Your task to perform on an android device: Find coffee shops on Maps Image 0: 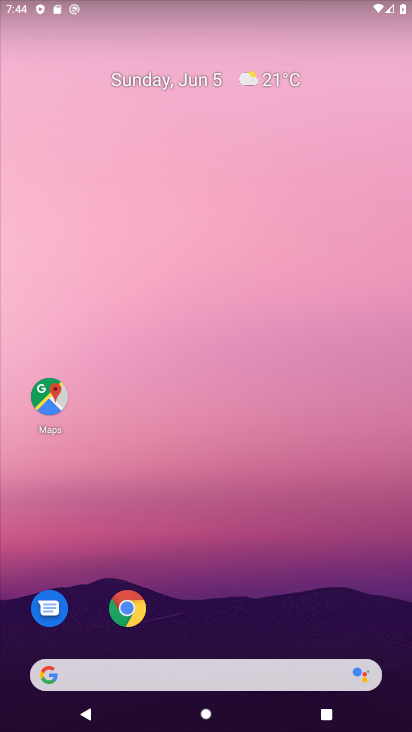
Step 0: drag from (188, 604) to (189, 229)
Your task to perform on an android device: Find coffee shops on Maps Image 1: 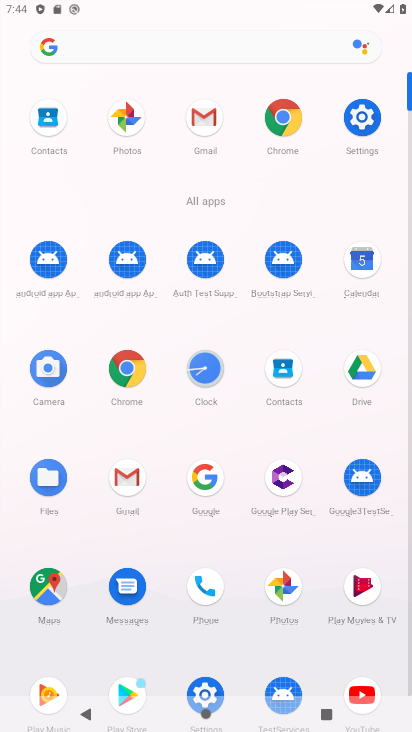
Step 1: click (46, 582)
Your task to perform on an android device: Find coffee shops on Maps Image 2: 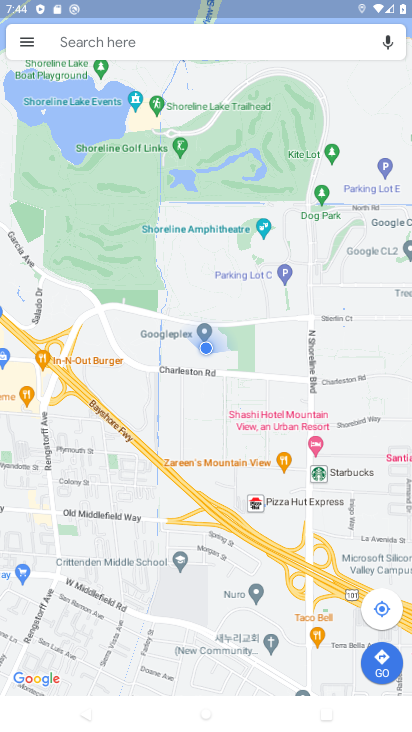
Step 2: click (176, 26)
Your task to perform on an android device: Find coffee shops on Maps Image 3: 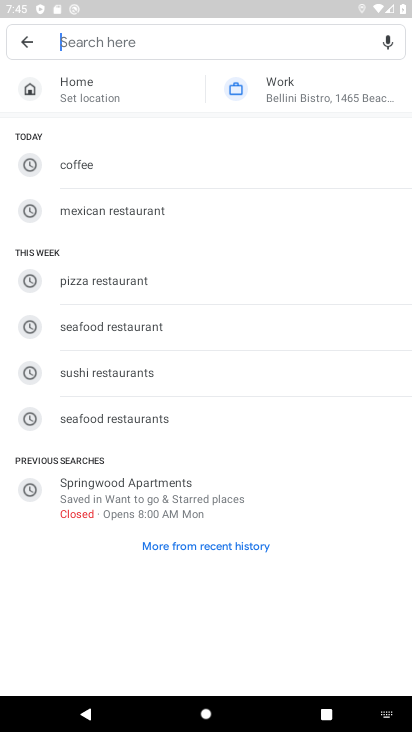
Step 3: type "coffee shops"
Your task to perform on an android device: Find coffee shops on Maps Image 4: 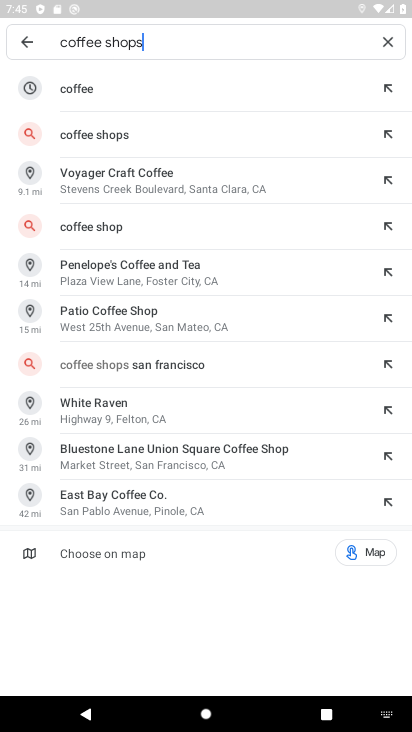
Step 4: click (96, 132)
Your task to perform on an android device: Find coffee shops on Maps Image 5: 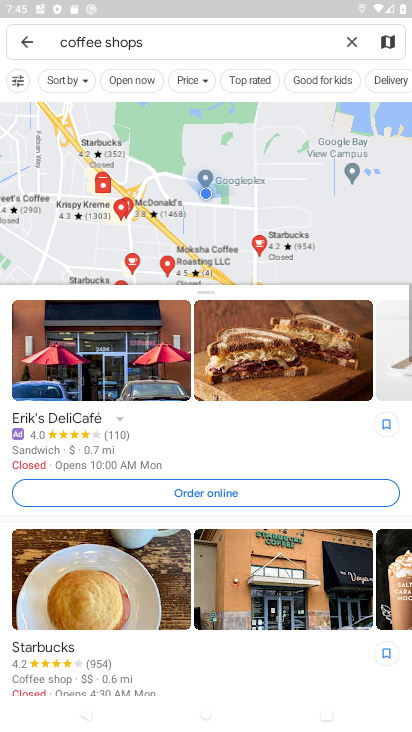
Step 5: task complete